Your task to perform on an android device: turn off priority inbox in the gmail app Image 0: 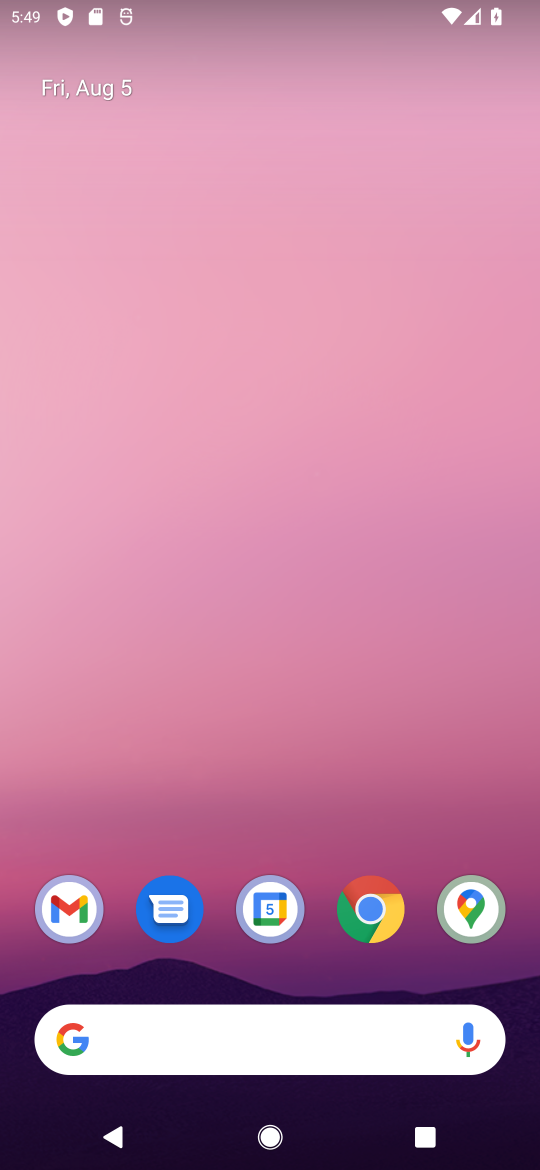
Step 0: click (62, 920)
Your task to perform on an android device: turn off priority inbox in the gmail app Image 1: 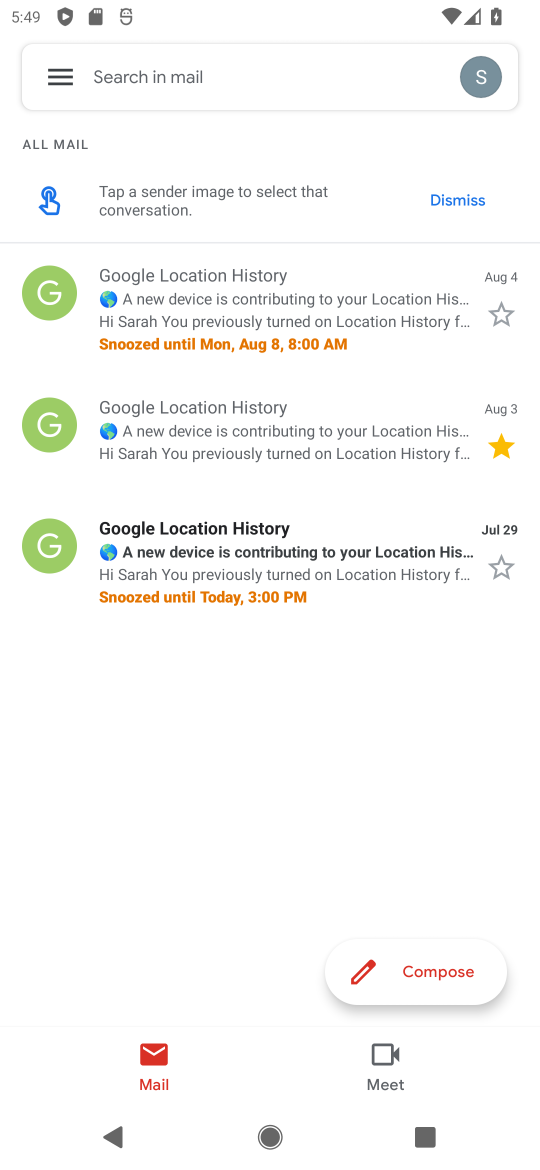
Step 1: click (70, 73)
Your task to perform on an android device: turn off priority inbox in the gmail app Image 2: 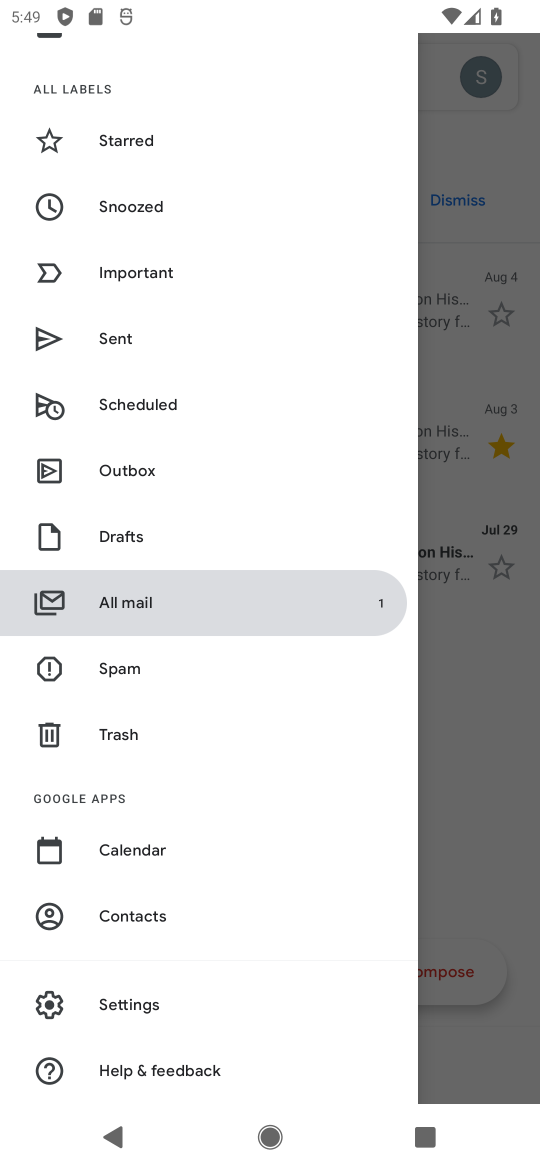
Step 2: click (106, 999)
Your task to perform on an android device: turn off priority inbox in the gmail app Image 3: 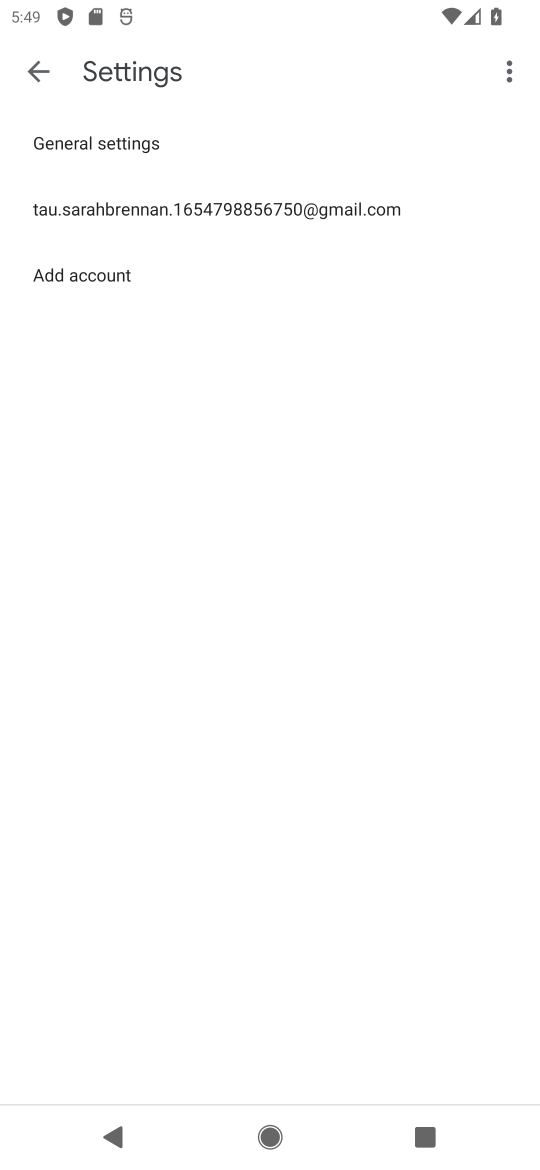
Step 3: click (142, 207)
Your task to perform on an android device: turn off priority inbox in the gmail app Image 4: 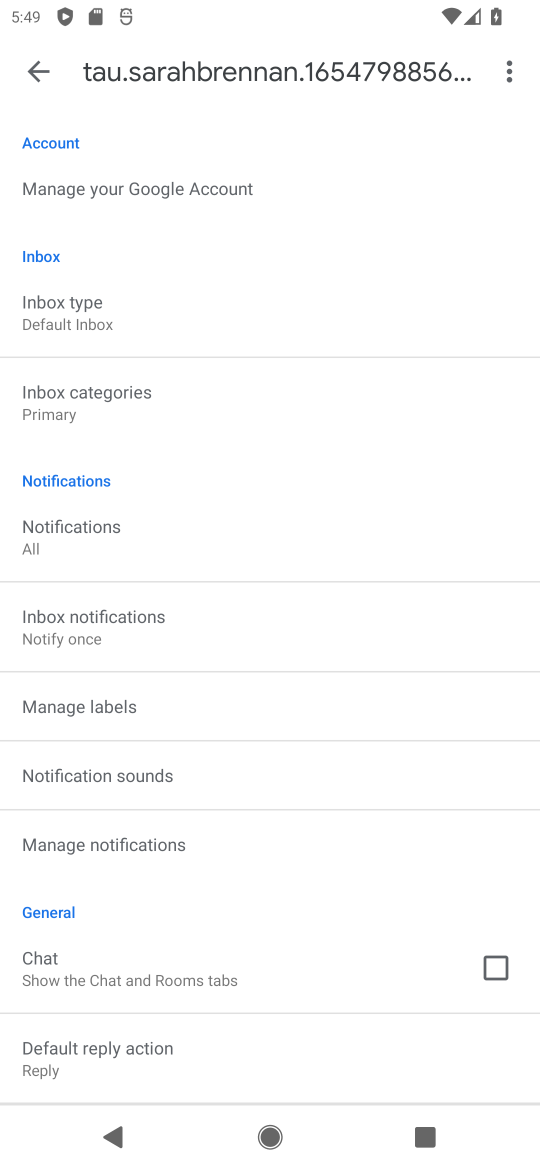
Step 4: click (72, 318)
Your task to perform on an android device: turn off priority inbox in the gmail app Image 5: 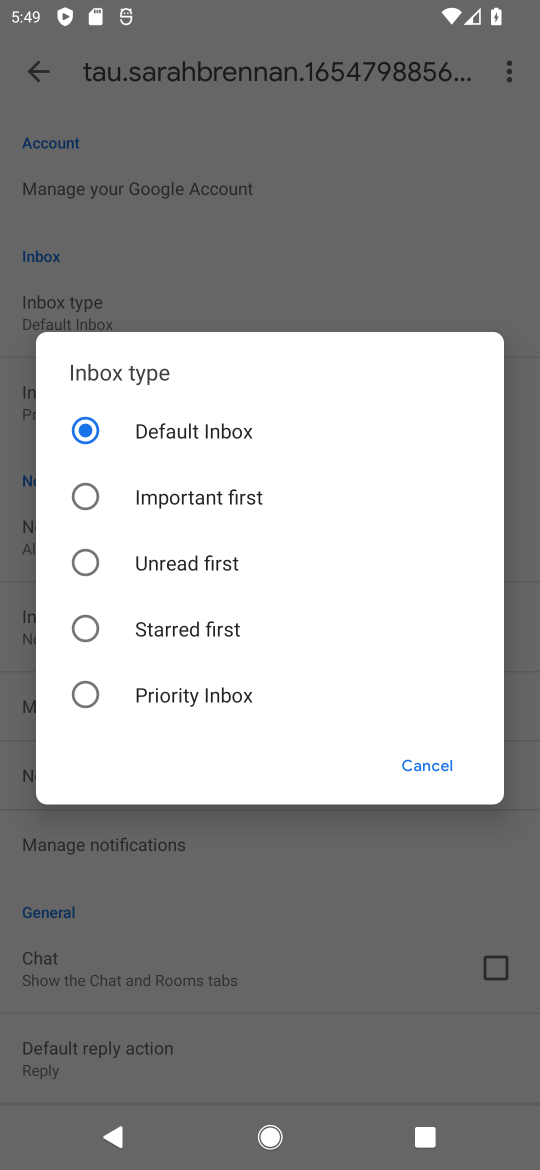
Step 5: task complete